Your task to perform on an android device: Do I have any events tomorrow? Image 0: 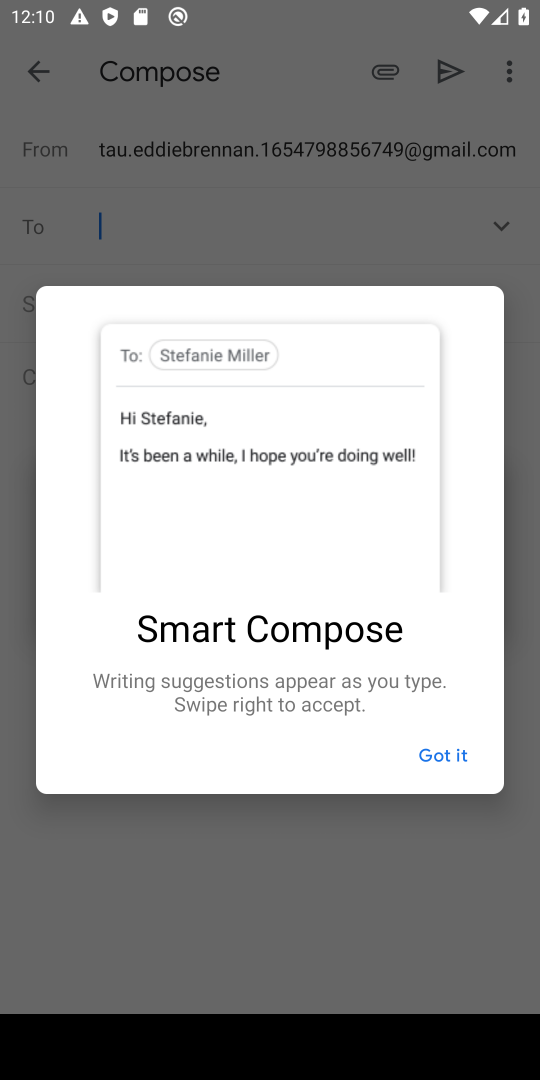
Step 0: press home button
Your task to perform on an android device: Do I have any events tomorrow? Image 1: 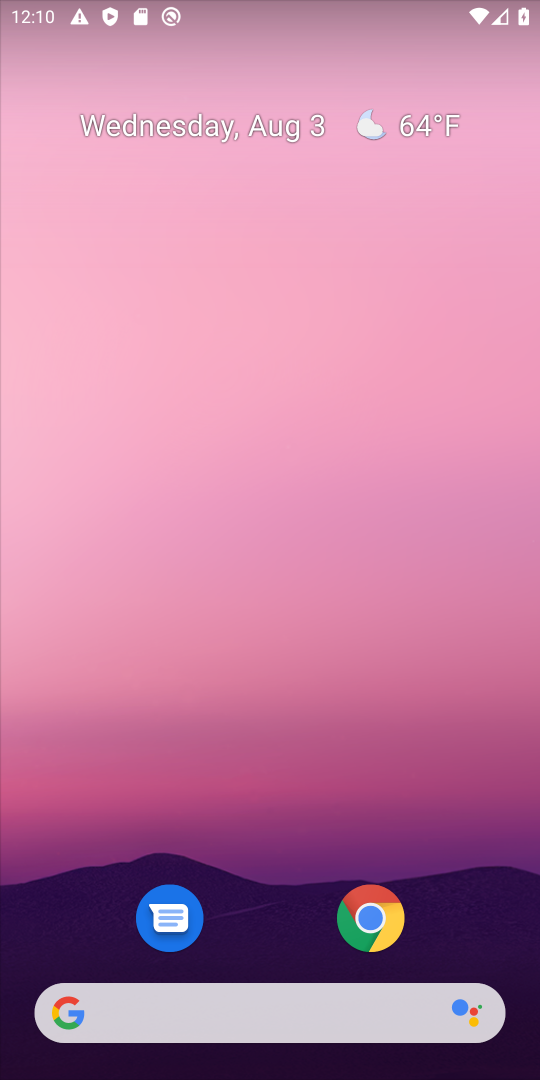
Step 1: drag from (264, 887) to (326, 150)
Your task to perform on an android device: Do I have any events tomorrow? Image 2: 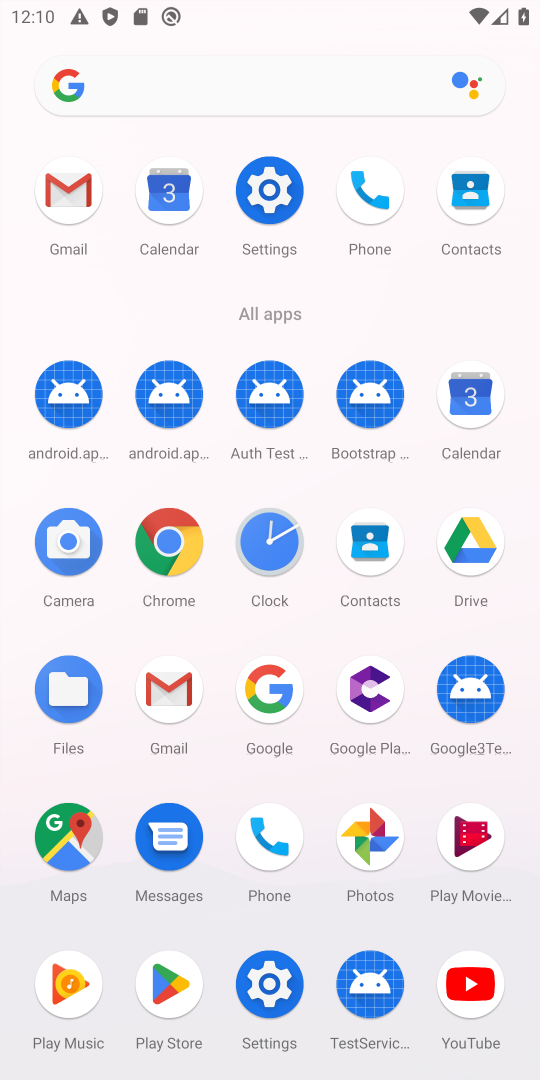
Step 2: click (457, 392)
Your task to perform on an android device: Do I have any events tomorrow? Image 3: 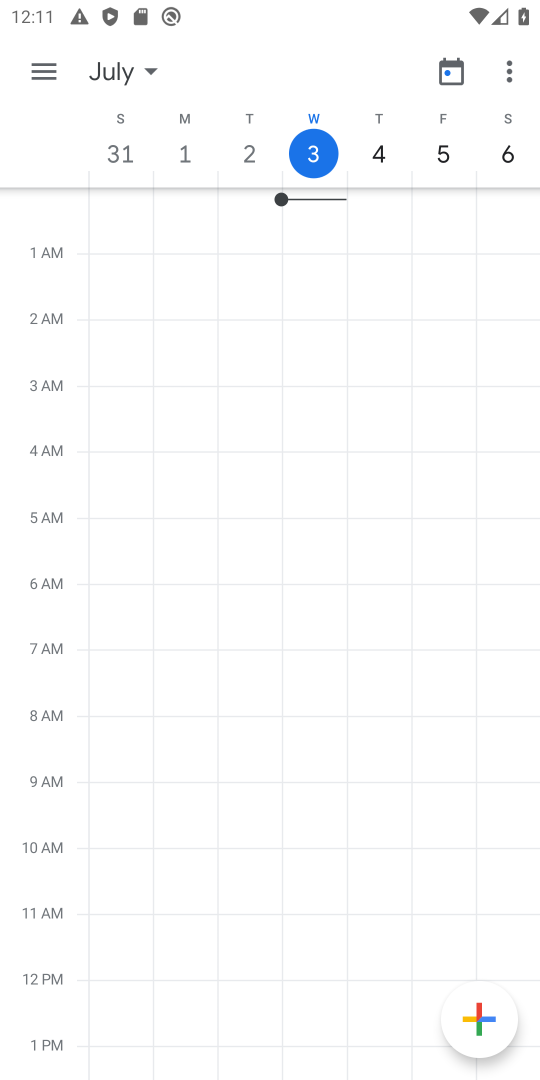
Step 3: task complete